Your task to perform on an android device: visit the assistant section in the google photos Image 0: 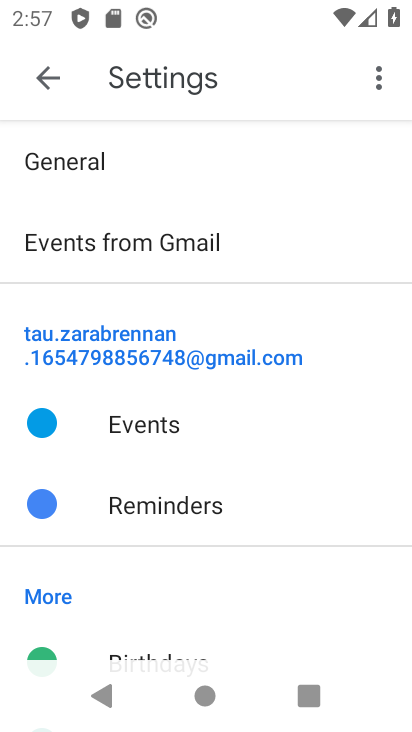
Step 0: press back button
Your task to perform on an android device: visit the assistant section in the google photos Image 1: 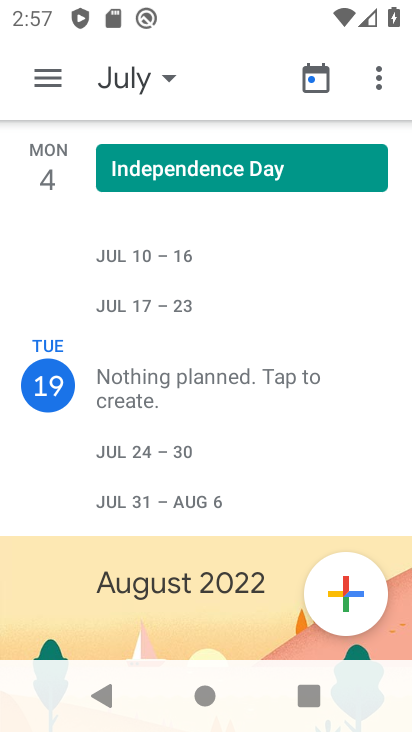
Step 1: press back button
Your task to perform on an android device: visit the assistant section in the google photos Image 2: 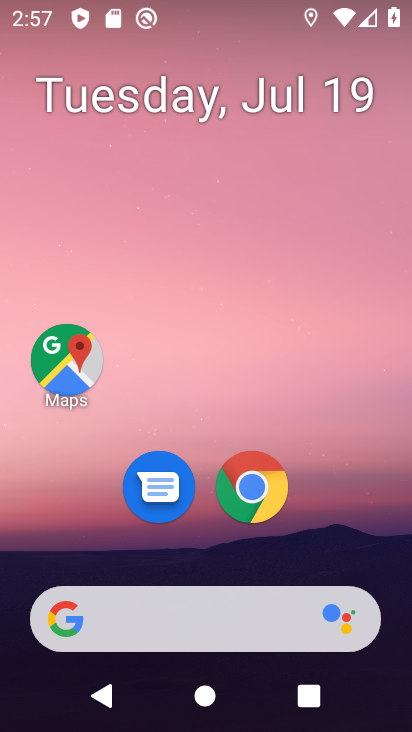
Step 2: drag from (226, 543) to (282, 2)
Your task to perform on an android device: visit the assistant section in the google photos Image 3: 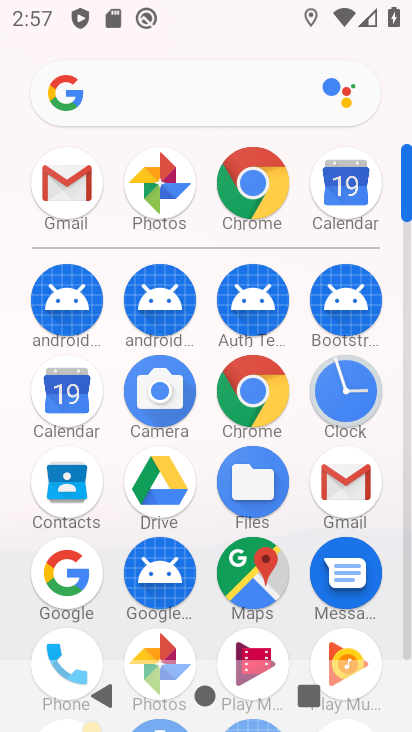
Step 3: click (170, 198)
Your task to perform on an android device: visit the assistant section in the google photos Image 4: 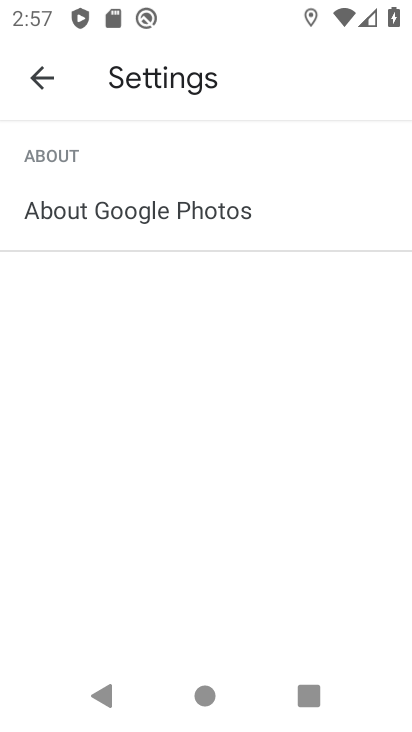
Step 4: click (46, 77)
Your task to perform on an android device: visit the assistant section in the google photos Image 5: 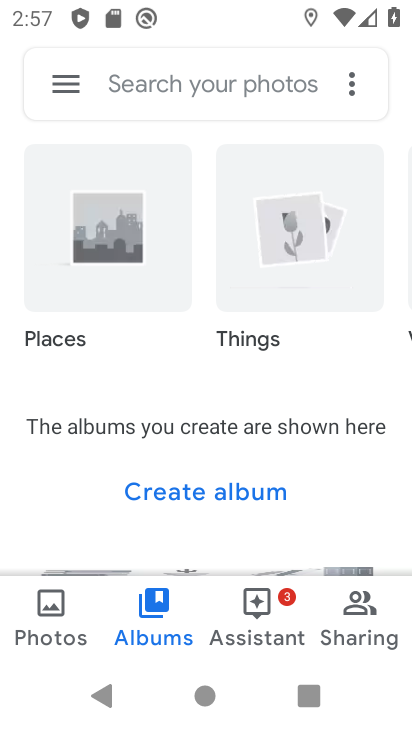
Step 5: click (256, 630)
Your task to perform on an android device: visit the assistant section in the google photos Image 6: 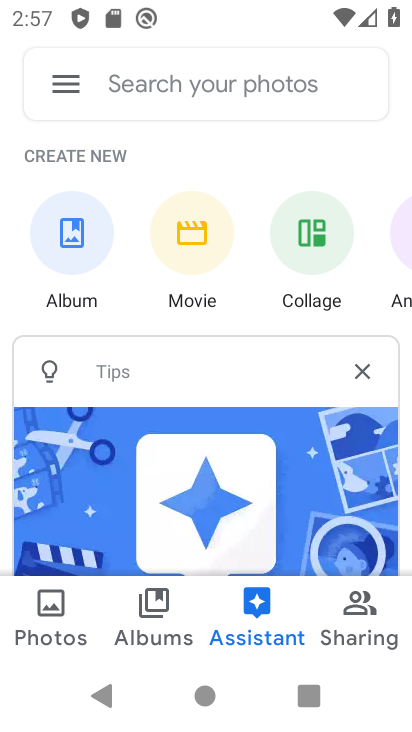
Step 6: task complete